Your task to perform on an android device: Turn on the flashlight Image 0: 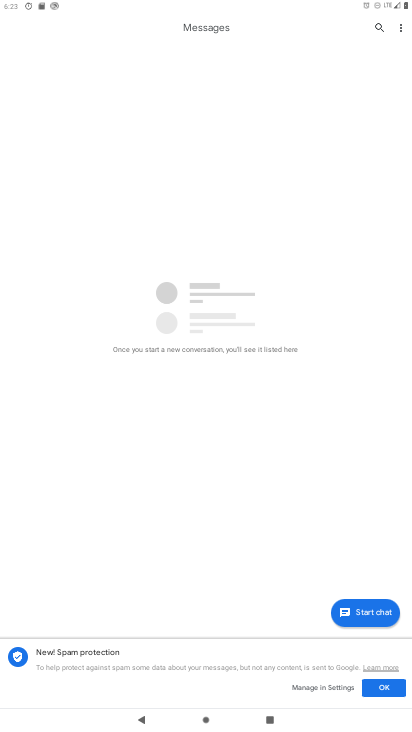
Step 0: press home button
Your task to perform on an android device: Turn on the flashlight Image 1: 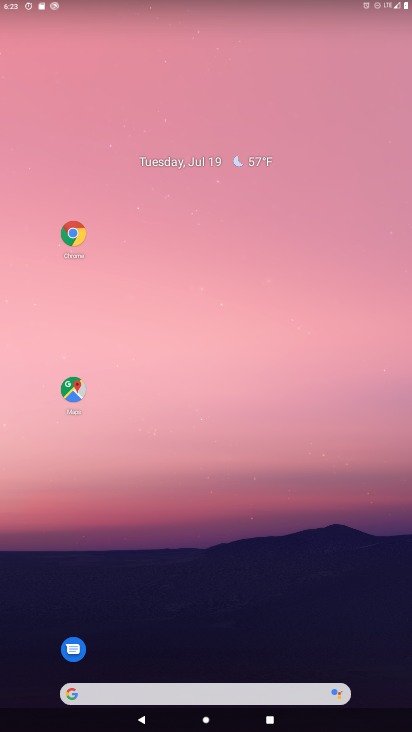
Step 1: task complete